Your task to perform on an android device: turn off location history Image 0: 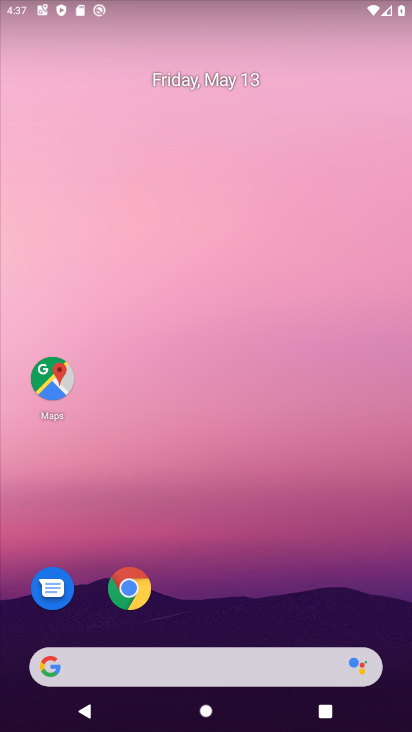
Step 0: drag from (236, 603) to (395, 279)
Your task to perform on an android device: turn off location history Image 1: 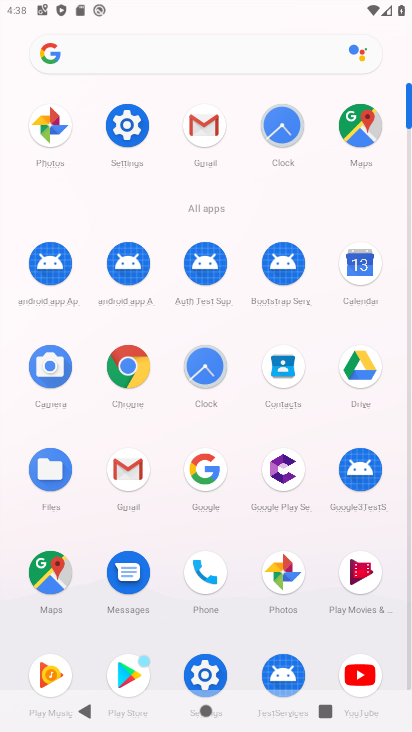
Step 1: click (210, 675)
Your task to perform on an android device: turn off location history Image 2: 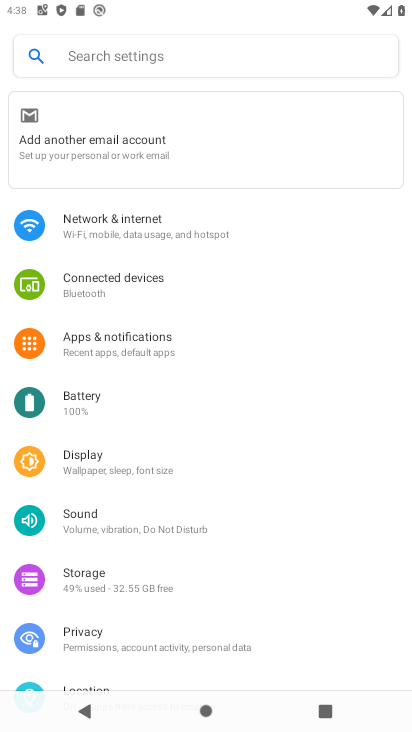
Step 2: drag from (84, 663) to (221, 277)
Your task to perform on an android device: turn off location history Image 3: 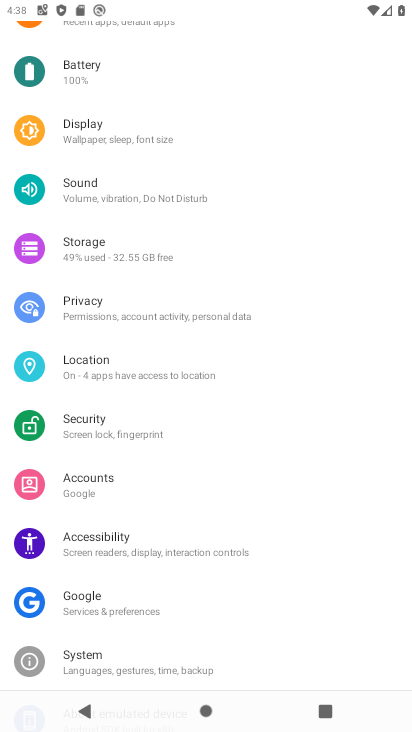
Step 3: click (126, 380)
Your task to perform on an android device: turn off location history Image 4: 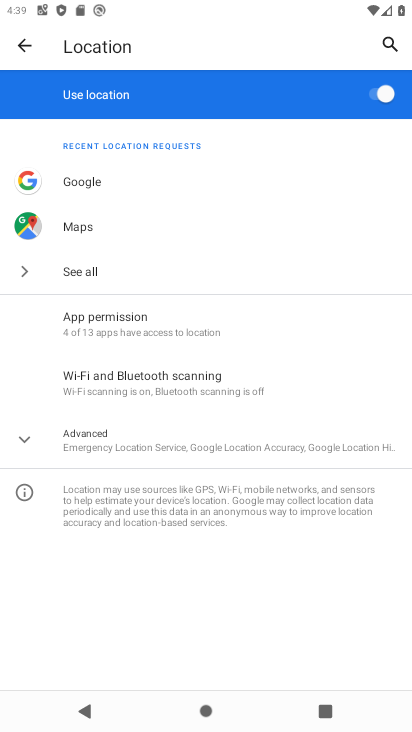
Step 4: click (394, 94)
Your task to perform on an android device: turn off location history Image 5: 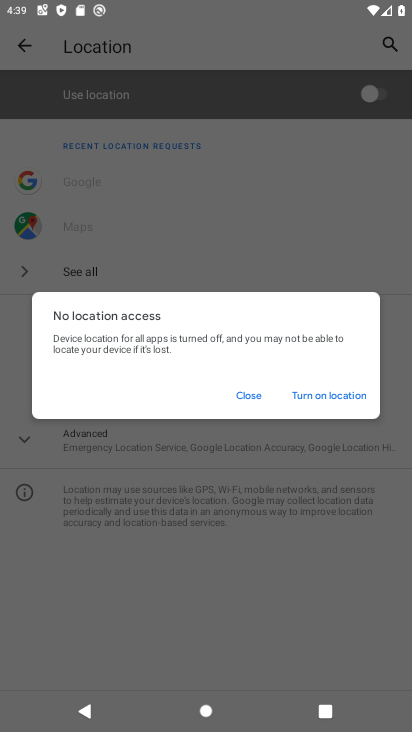
Step 5: task complete